Your task to perform on an android device: Search for Mexican restaurants on Maps Image 0: 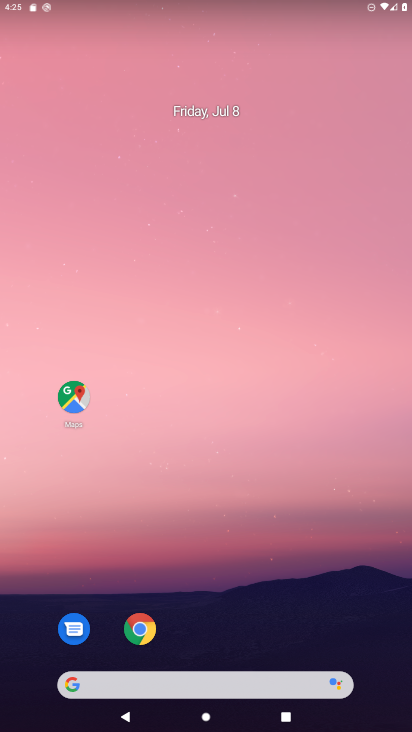
Step 0: click (80, 398)
Your task to perform on an android device: Search for Mexican restaurants on Maps Image 1: 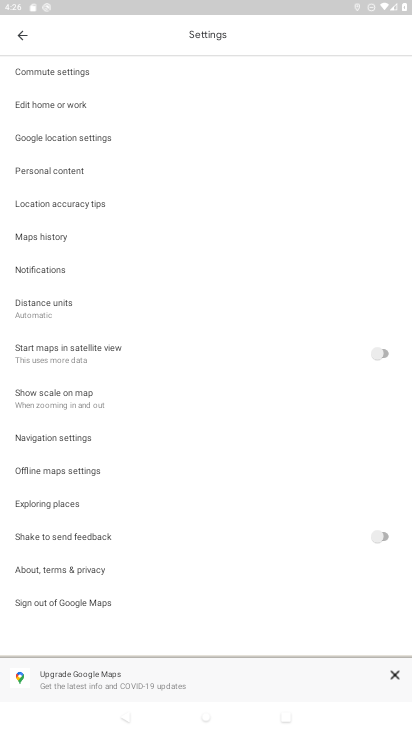
Step 1: click (27, 32)
Your task to perform on an android device: Search for Mexican restaurants on Maps Image 2: 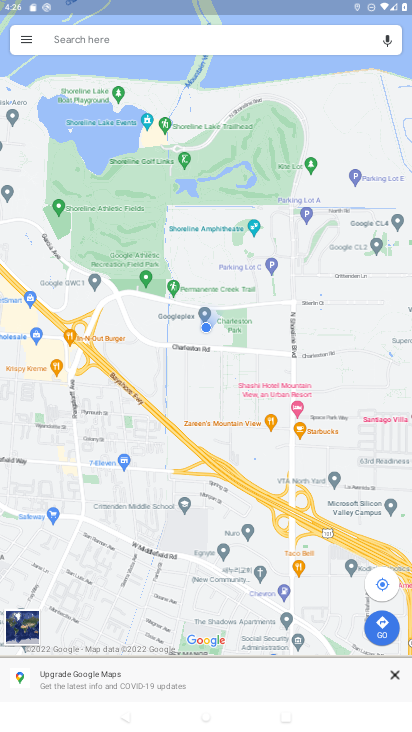
Step 2: click (190, 45)
Your task to perform on an android device: Search for Mexican restaurants on Maps Image 3: 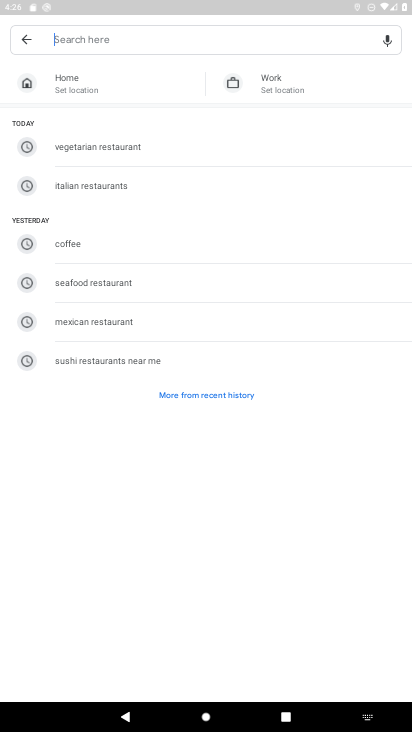
Step 3: click (109, 320)
Your task to perform on an android device: Search for Mexican restaurants on Maps Image 4: 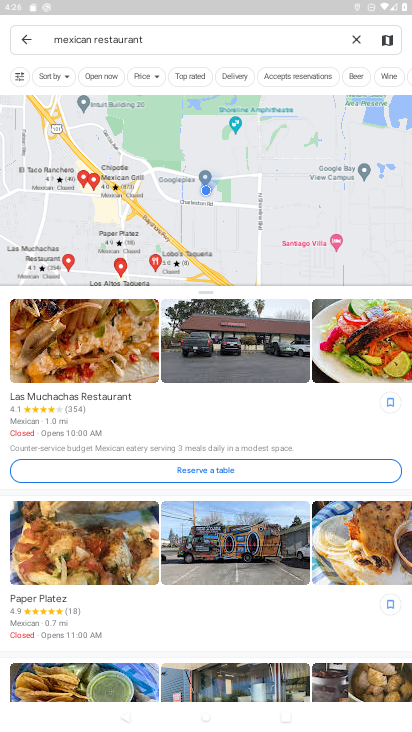
Step 4: task complete